Your task to perform on an android device: set the timer Image 0: 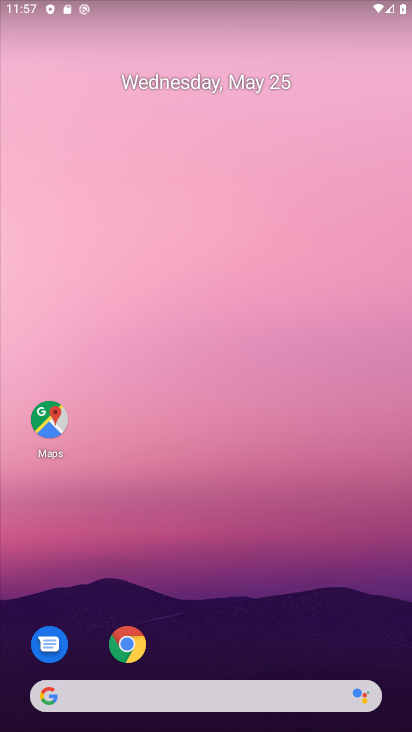
Step 0: drag from (213, 595) to (161, 3)
Your task to perform on an android device: set the timer Image 1: 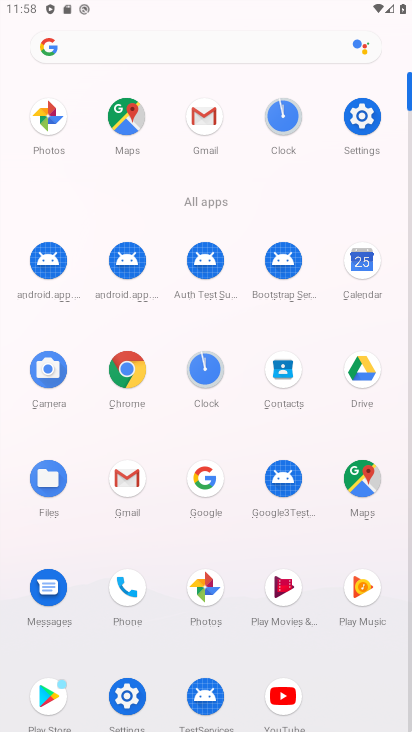
Step 1: click (282, 115)
Your task to perform on an android device: set the timer Image 2: 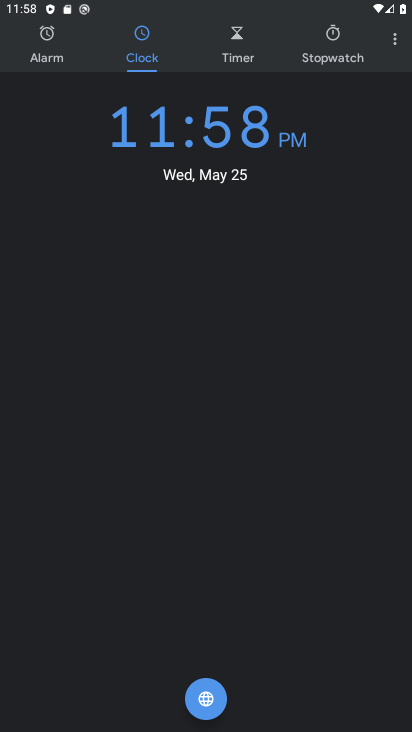
Step 2: click (237, 35)
Your task to perform on an android device: set the timer Image 3: 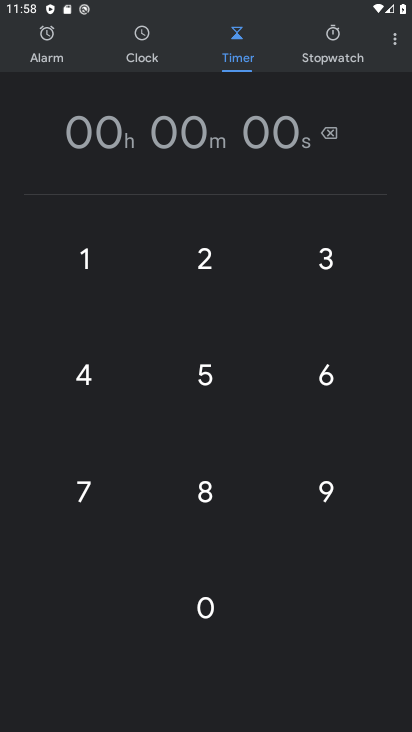
Step 3: type "1234"
Your task to perform on an android device: set the timer Image 4: 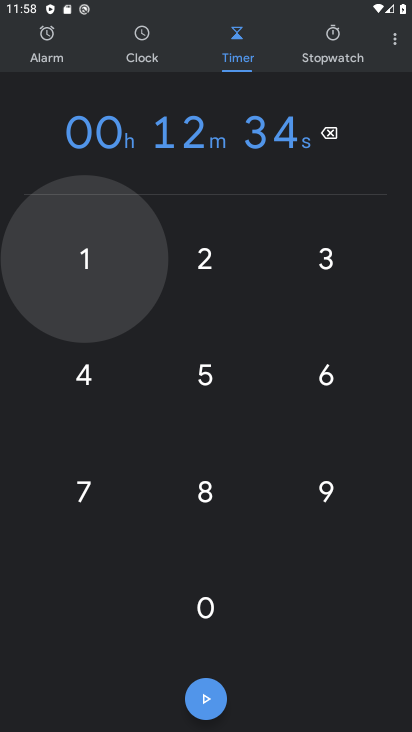
Step 4: click (206, 700)
Your task to perform on an android device: set the timer Image 5: 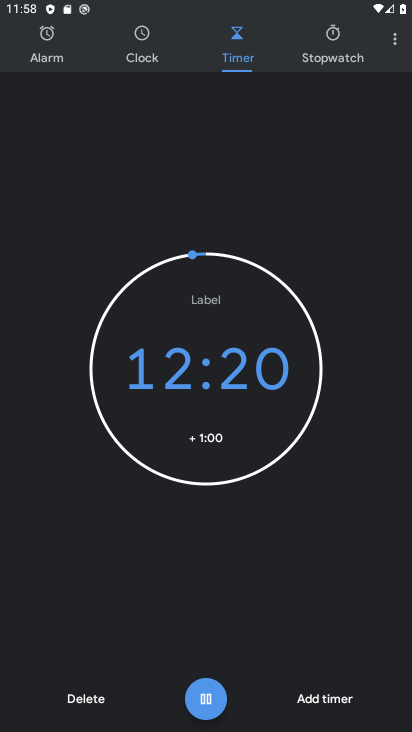
Step 5: click (206, 700)
Your task to perform on an android device: set the timer Image 6: 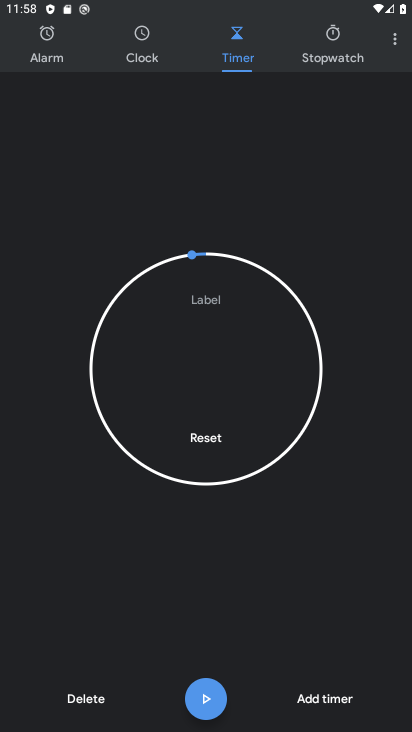
Step 6: task complete